Your task to perform on an android device: open a bookmark in the chrome app Image 0: 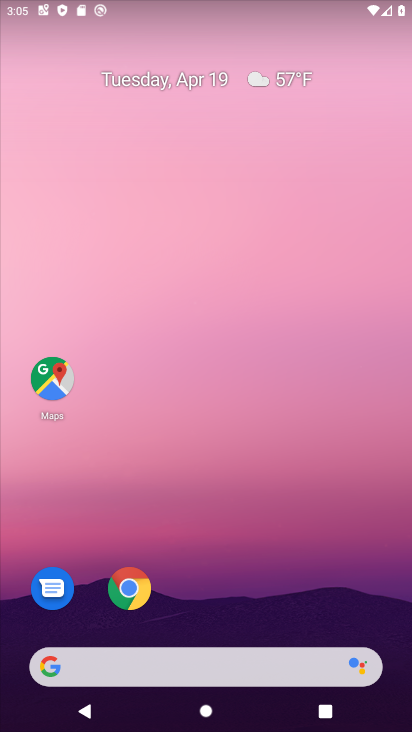
Step 0: drag from (217, 513) to (242, 203)
Your task to perform on an android device: open a bookmark in the chrome app Image 1: 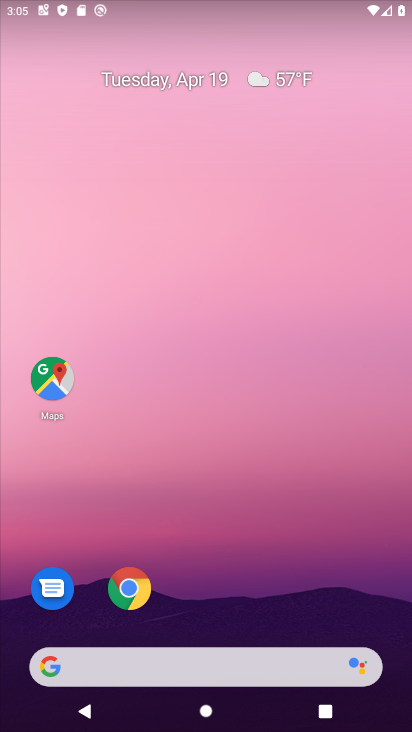
Step 1: drag from (226, 625) to (272, 161)
Your task to perform on an android device: open a bookmark in the chrome app Image 2: 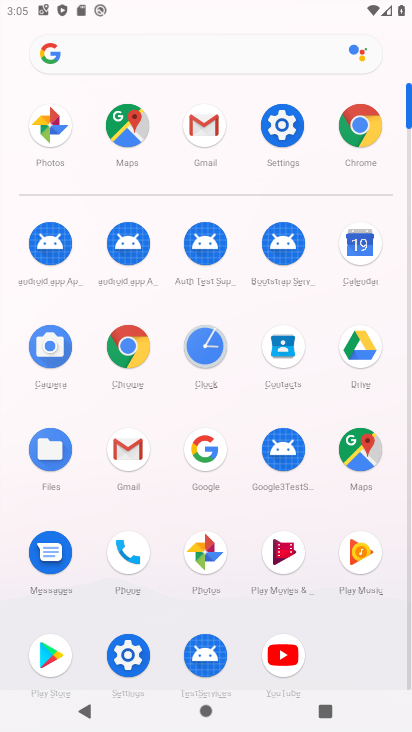
Step 2: click (123, 344)
Your task to perform on an android device: open a bookmark in the chrome app Image 3: 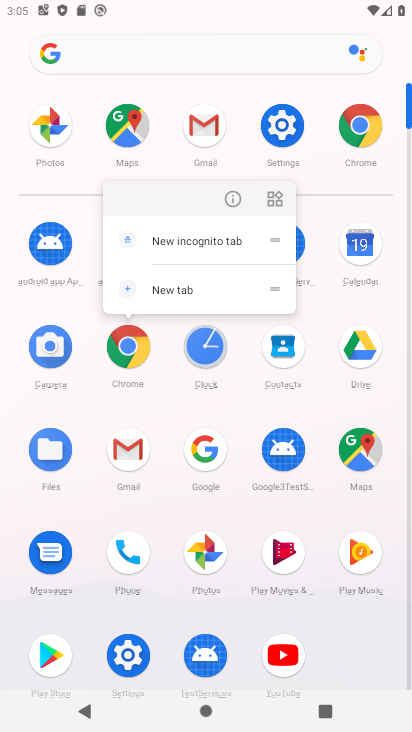
Step 3: click (241, 200)
Your task to perform on an android device: open a bookmark in the chrome app Image 4: 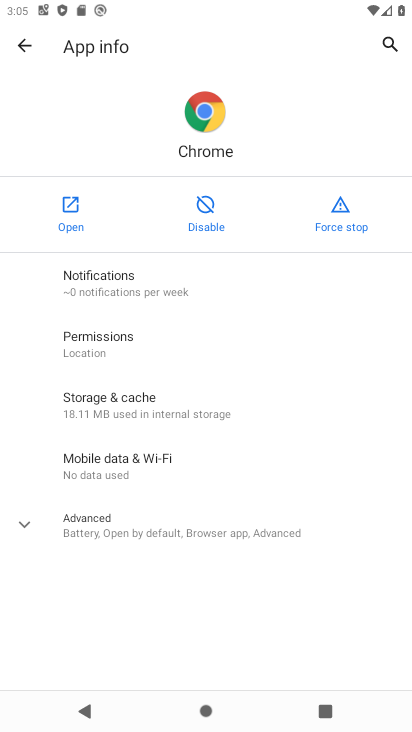
Step 4: click (69, 207)
Your task to perform on an android device: open a bookmark in the chrome app Image 5: 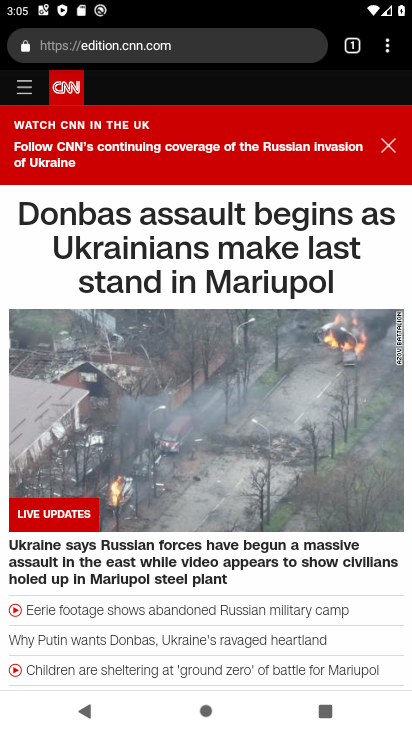
Step 5: task complete